Your task to perform on an android device: toggle javascript in the chrome app Image 0: 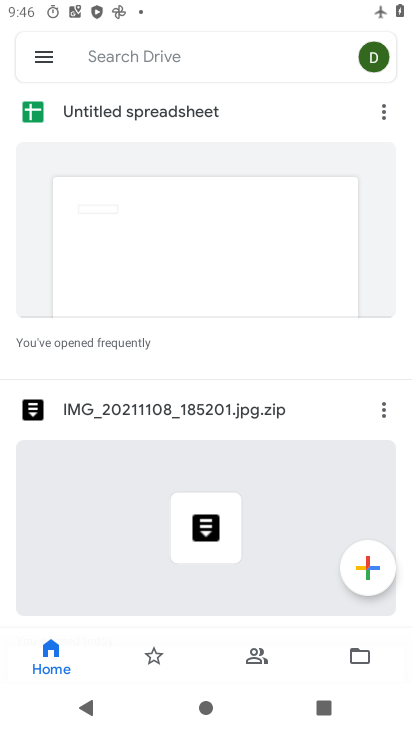
Step 0: press home button
Your task to perform on an android device: toggle javascript in the chrome app Image 1: 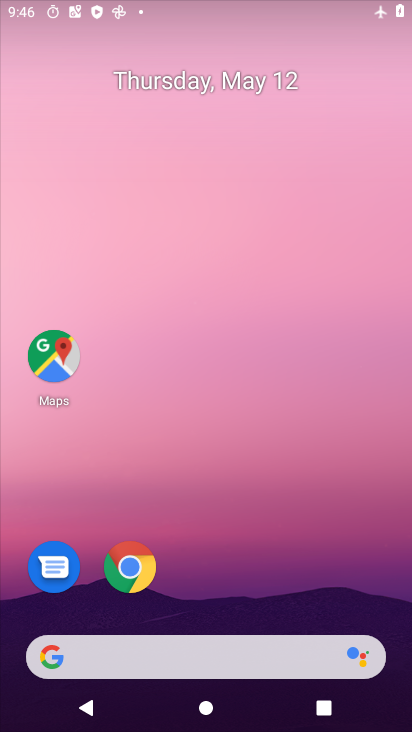
Step 1: drag from (214, 546) to (249, 4)
Your task to perform on an android device: toggle javascript in the chrome app Image 2: 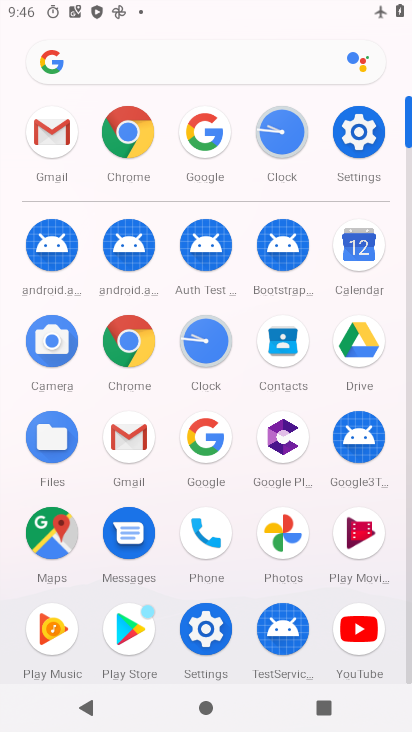
Step 2: click (129, 140)
Your task to perform on an android device: toggle javascript in the chrome app Image 3: 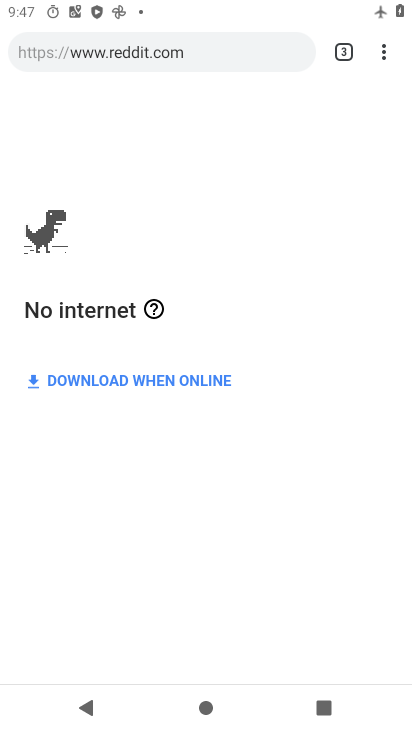
Step 3: click (377, 42)
Your task to perform on an android device: toggle javascript in the chrome app Image 4: 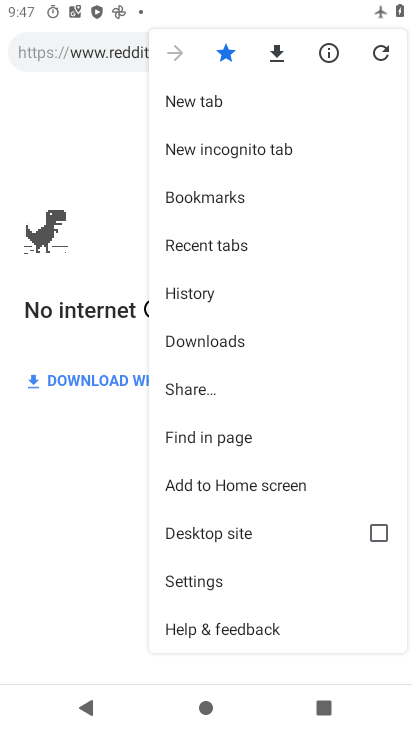
Step 4: click (231, 579)
Your task to perform on an android device: toggle javascript in the chrome app Image 5: 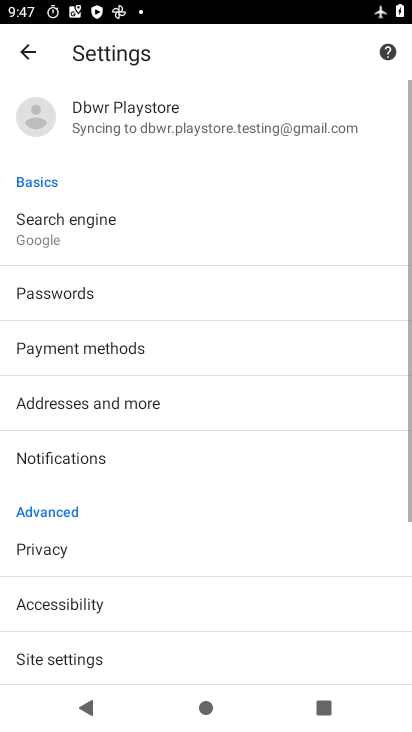
Step 5: drag from (229, 577) to (229, 243)
Your task to perform on an android device: toggle javascript in the chrome app Image 6: 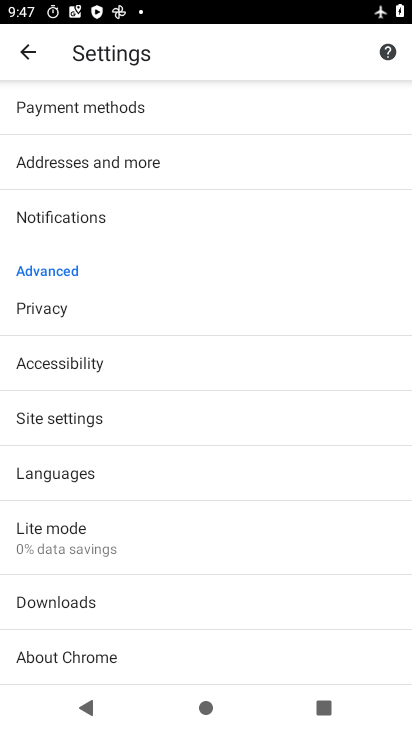
Step 6: click (110, 425)
Your task to perform on an android device: toggle javascript in the chrome app Image 7: 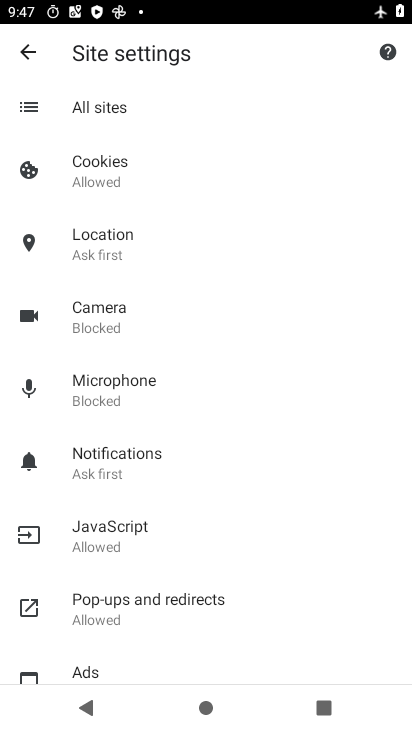
Step 7: click (190, 535)
Your task to perform on an android device: toggle javascript in the chrome app Image 8: 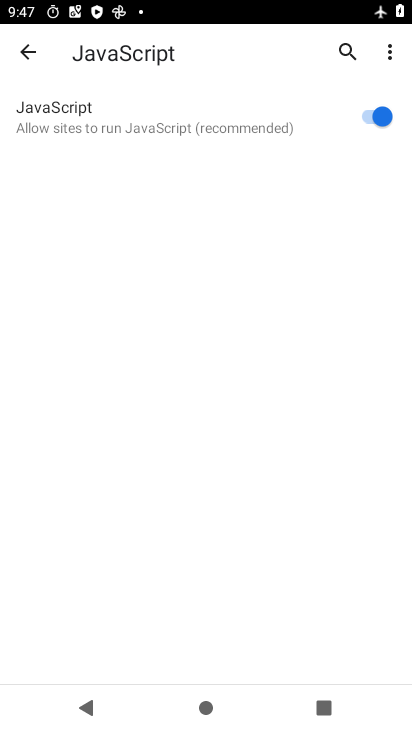
Step 8: click (364, 120)
Your task to perform on an android device: toggle javascript in the chrome app Image 9: 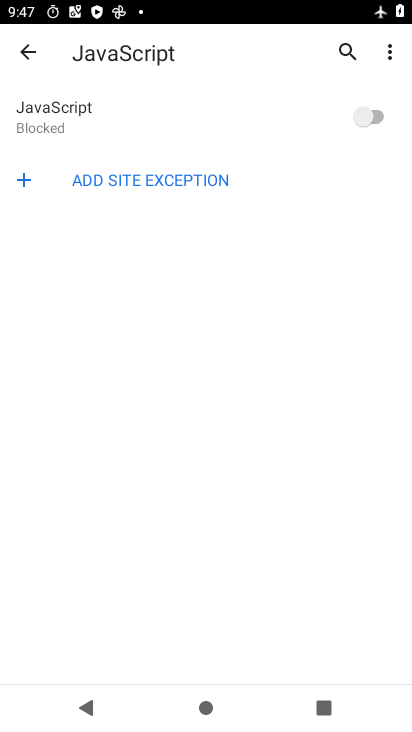
Step 9: task complete